Your task to perform on an android device: Go to notification settings Image 0: 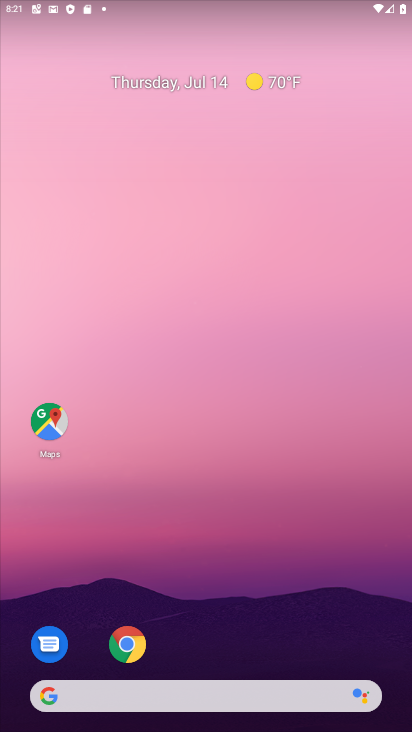
Step 0: drag from (219, 617) to (228, 201)
Your task to perform on an android device: Go to notification settings Image 1: 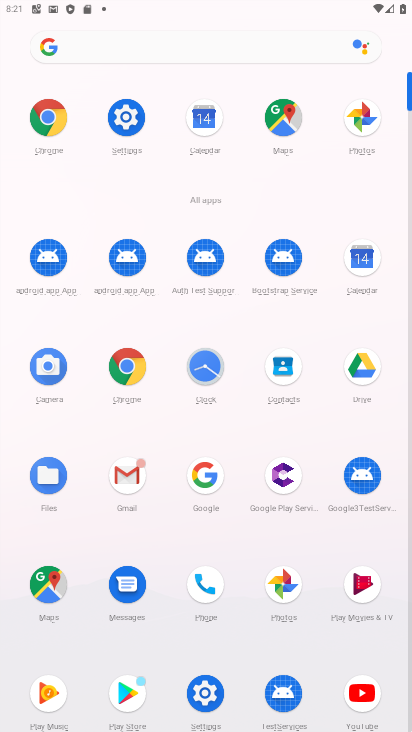
Step 1: click (113, 118)
Your task to perform on an android device: Go to notification settings Image 2: 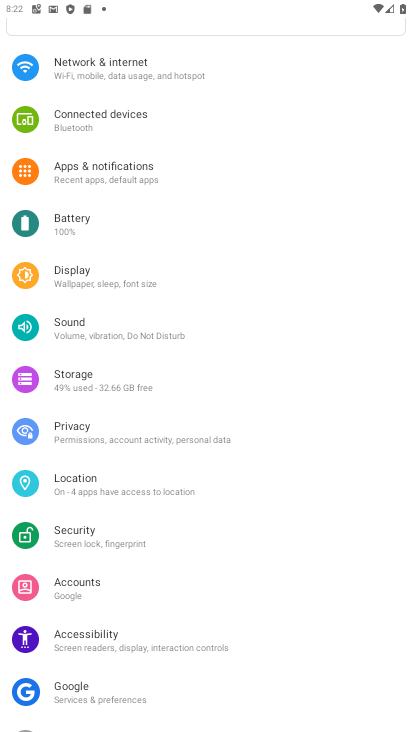
Step 2: click (115, 170)
Your task to perform on an android device: Go to notification settings Image 3: 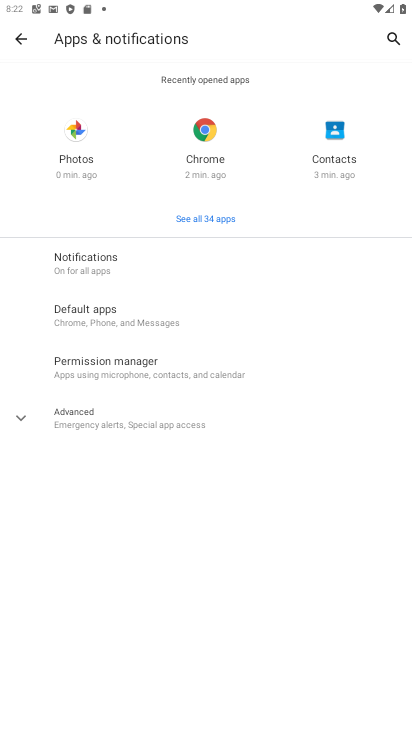
Step 3: task complete